Your task to perform on an android device: Go to internet settings Image 0: 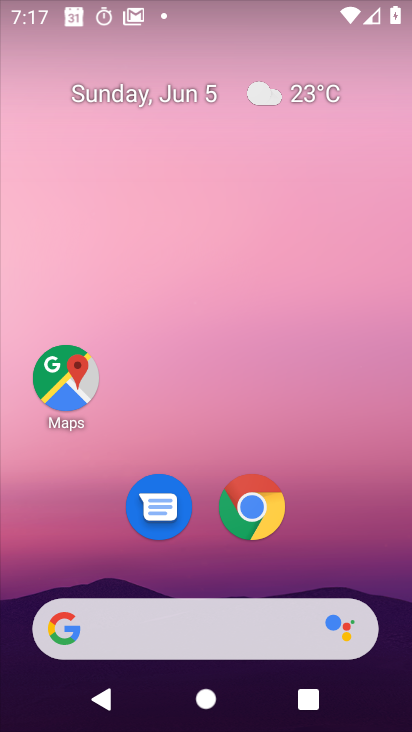
Step 0: drag from (252, 608) to (207, 183)
Your task to perform on an android device: Go to internet settings Image 1: 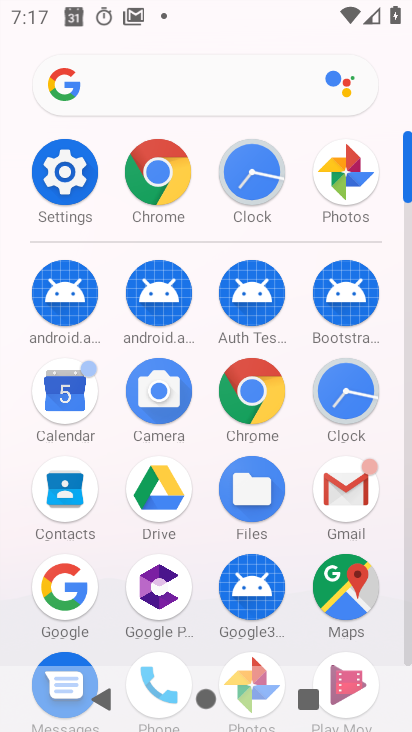
Step 1: click (82, 199)
Your task to perform on an android device: Go to internet settings Image 2: 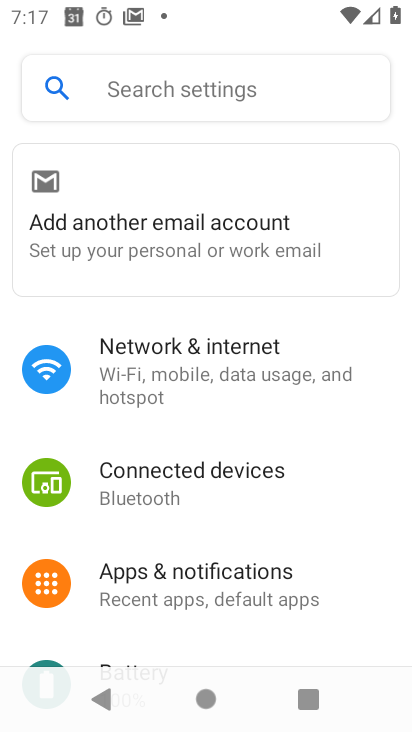
Step 2: click (226, 396)
Your task to perform on an android device: Go to internet settings Image 3: 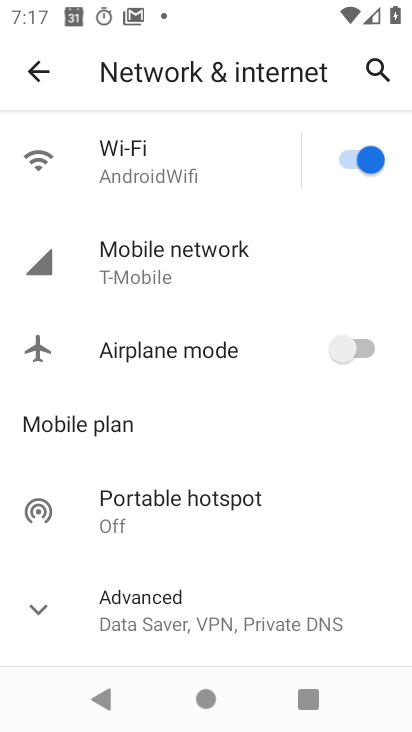
Step 3: task complete